Your task to perform on an android device: Open CNN.com Image 0: 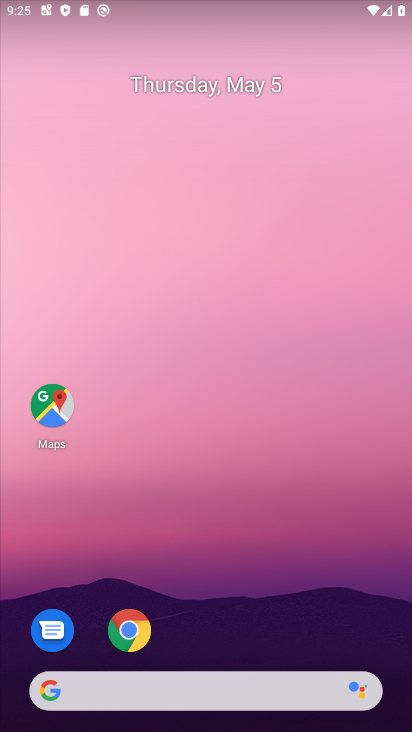
Step 0: click (190, 694)
Your task to perform on an android device: Open CNN.com Image 1: 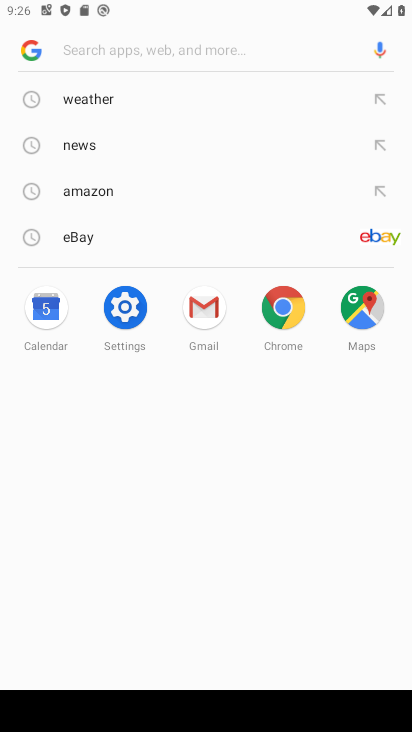
Step 1: type "cnn.com"
Your task to perform on an android device: Open CNN.com Image 2: 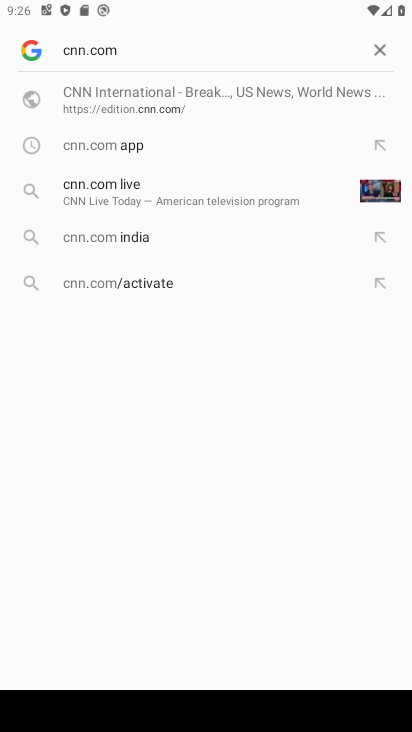
Step 2: click (219, 104)
Your task to perform on an android device: Open CNN.com Image 3: 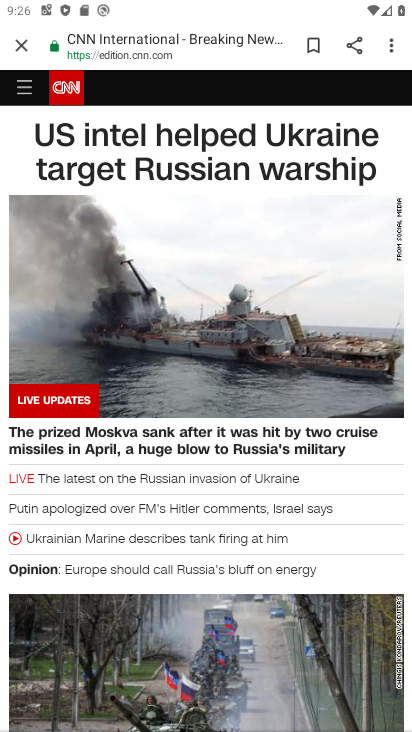
Step 3: task complete